Your task to perform on an android device: Go to Google maps Image 0: 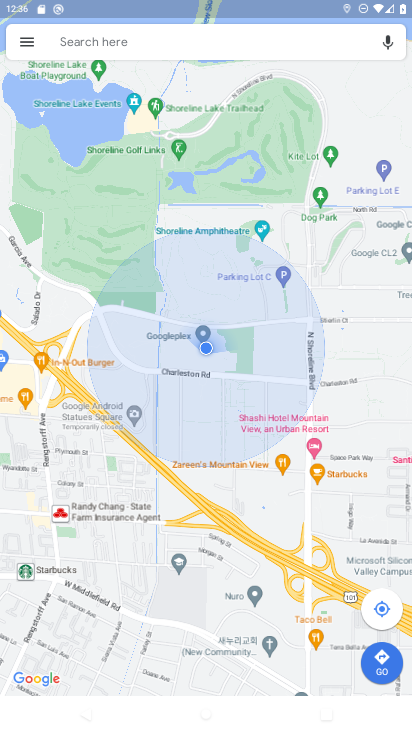
Step 0: task complete